Your task to perform on an android device: Search for vegetarian restaurants on Maps Image 0: 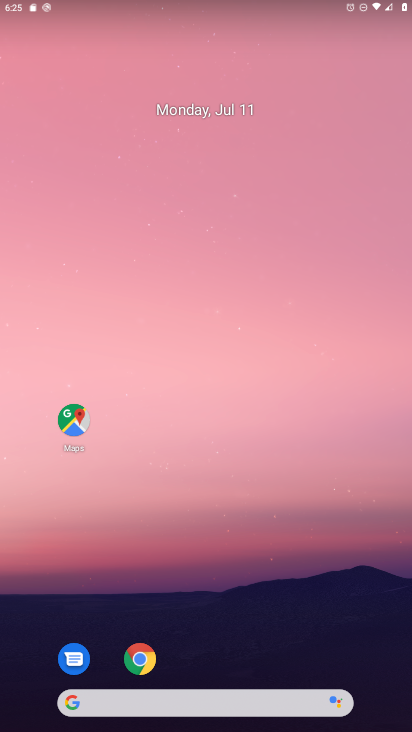
Step 0: click (76, 423)
Your task to perform on an android device: Search for vegetarian restaurants on Maps Image 1: 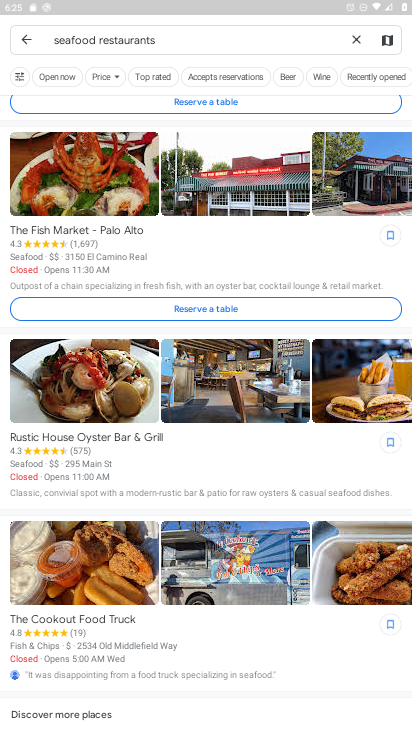
Step 1: click (356, 38)
Your task to perform on an android device: Search for vegetarian restaurants on Maps Image 2: 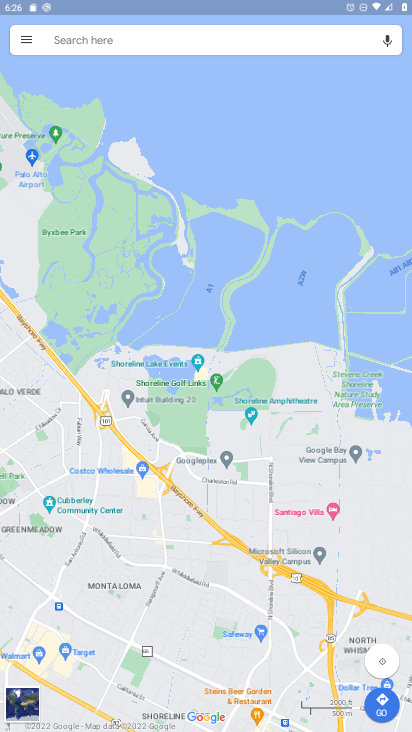
Step 2: click (114, 36)
Your task to perform on an android device: Search for vegetarian restaurants on Maps Image 3: 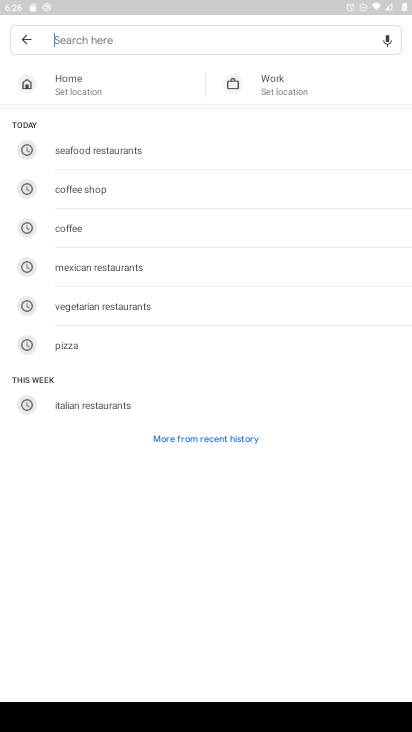
Step 3: type "vegetarian restaurants"
Your task to perform on an android device: Search for vegetarian restaurants on Maps Image 4: 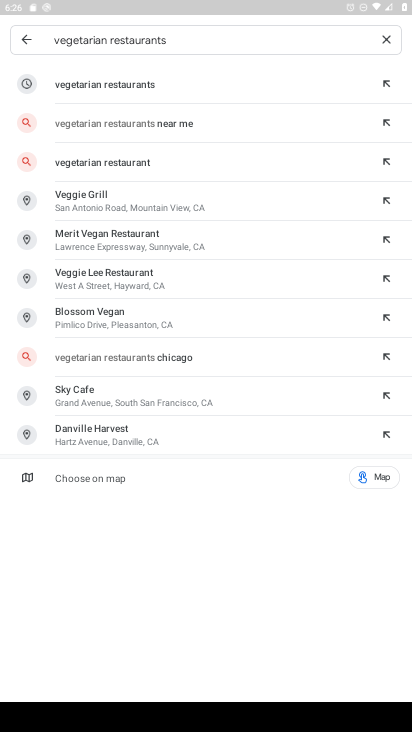
Step 4: click (104, 82)
Your task to perform on an android device: Search for vegetarian restaurants on Maps Image 5: 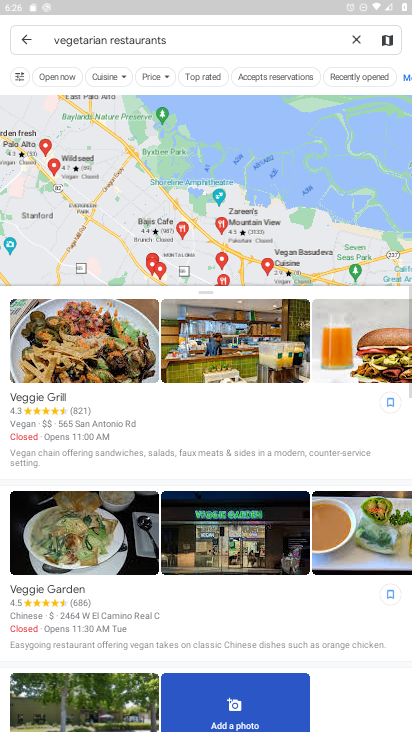
Step 5: task complete